Your task to perform on an android device: set the stopwatch Image 0: 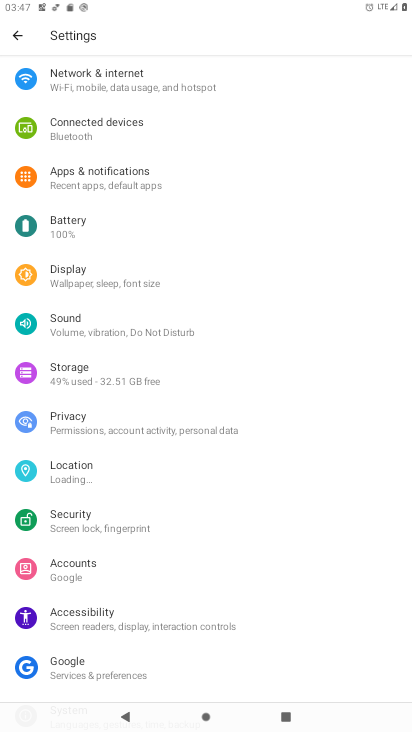
Step 0: press home button
Your task to perform on an android device: set the stopwatch Image 1: 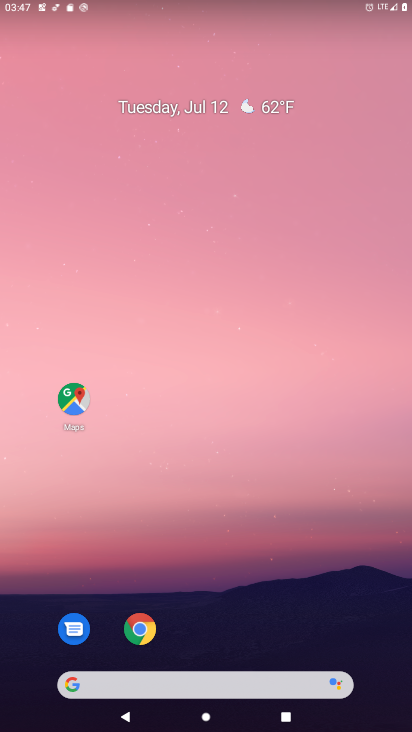
Step 1: drag from (222, 659) to (154, 32)
Your task to perform on an android device: set the stopwatch Image 2: 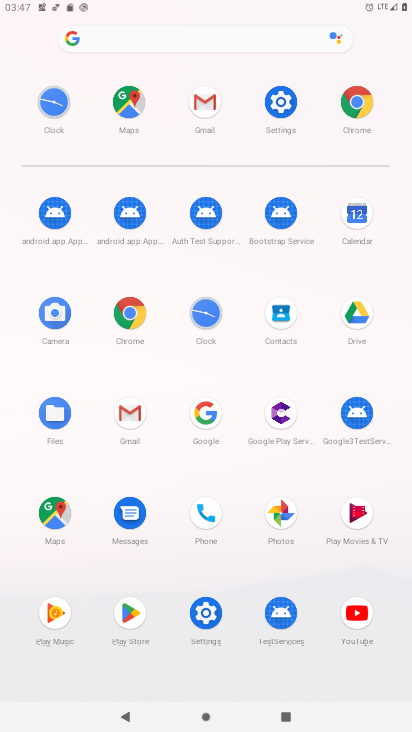
Step 2: click (195, 322)
Your task to perform on an android device: set the stopwatch Image 3: 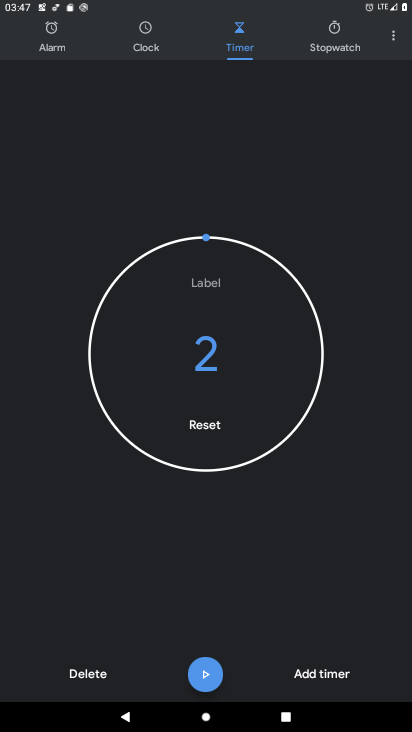
Step 3: click (319, 36)
Your task to perform on an android device: set the stopwatch Image 4: 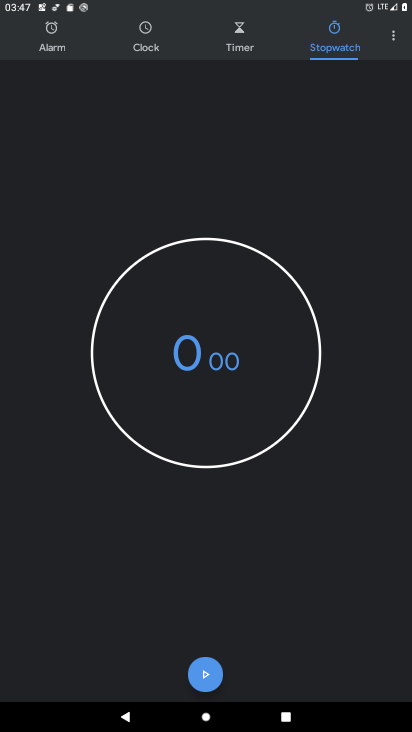
Step 4: click (210, 680)
Your task to perform on an android device: set the stopwatch Image 5: 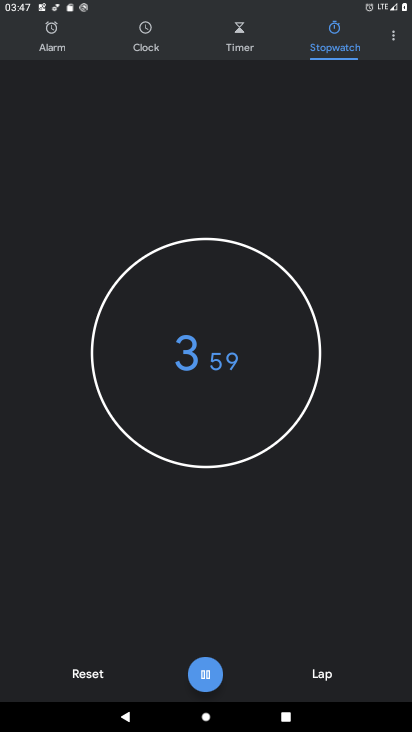
Step 5: task complete